Your task to perform on an android device: check android version Image 0: 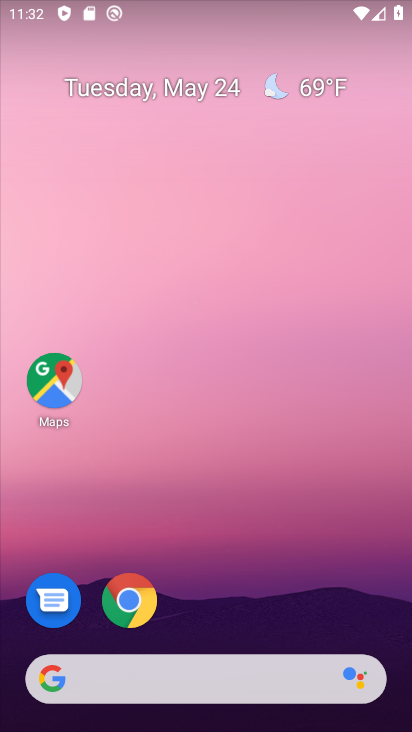
Step 0: drag from (374, 626) to (341, 220)
Your task to perform on an android device: check android version Image 1: 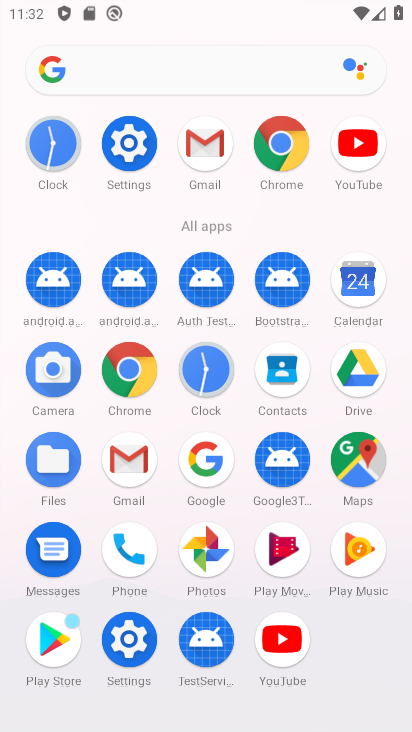
Step 1: click (129, 657)
Your task to perform on an android device: check android version Image 2: 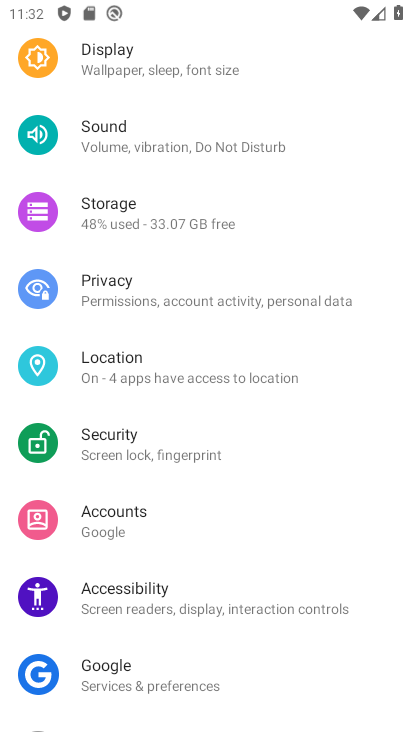
Step 2: drag from (361, 247) to (318, 447)
Your task to perform on an android device: check android version Image 3: 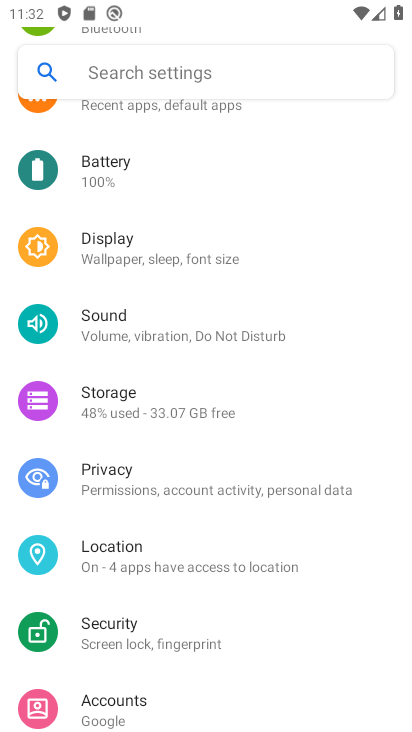
Step 3: drag from (317, 224) to (311, 417)
Your task to perform on an android device: check android version Image 4: 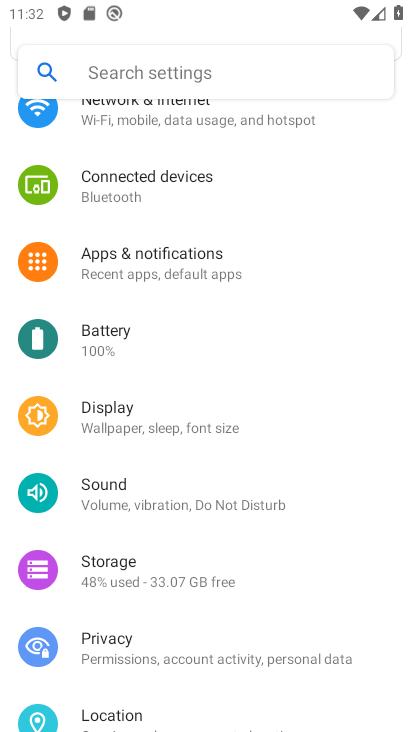
Step 4: drag from (354, 204) to (334, 387)
Your task to perform on an android device: check android version Image 5: 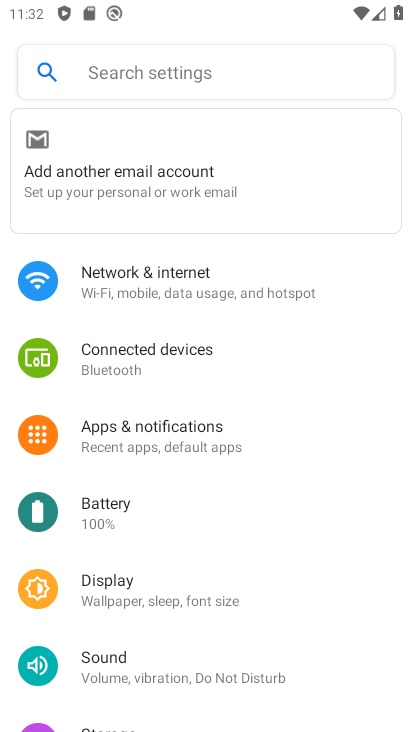
Step 5: drag from (335, 440) to (360, 332)
Your task to perform on an android device: check android version Image 6: 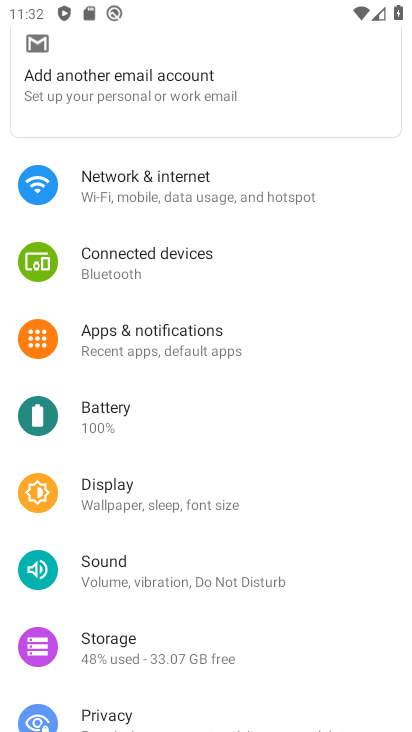
Step 6: drag from (372, 481) to (378, 385)
Your task to perform on an android device: check android version Image 7: 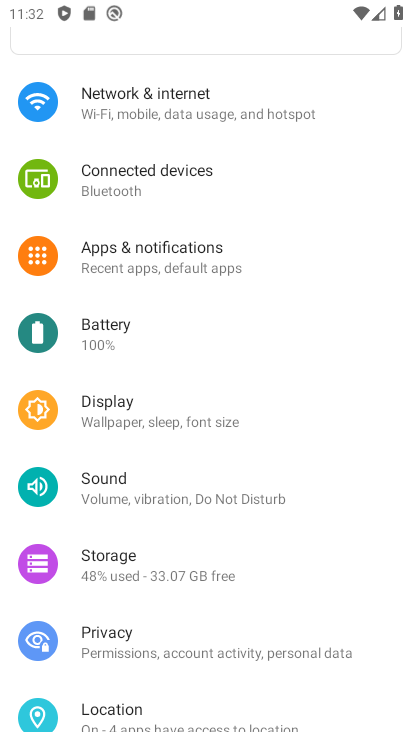
Step 7: drag from (363, 527) to (363, 406)
Your task to perform on an android device: check android version Image 8: 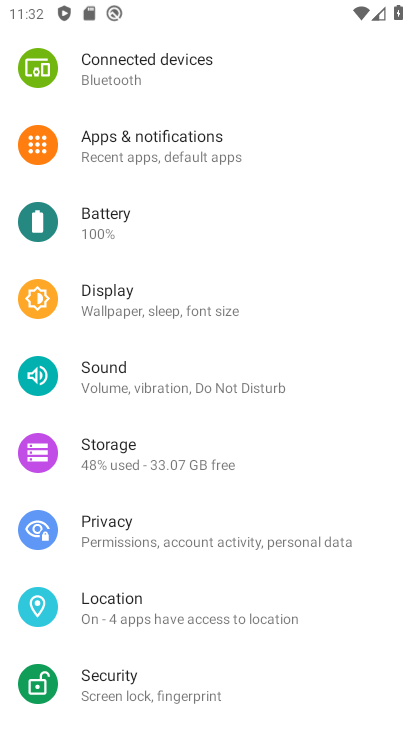
Step 8: drag from (354, 572) to (371, 436)
Your task to perform on an android device: check android version Image 9: 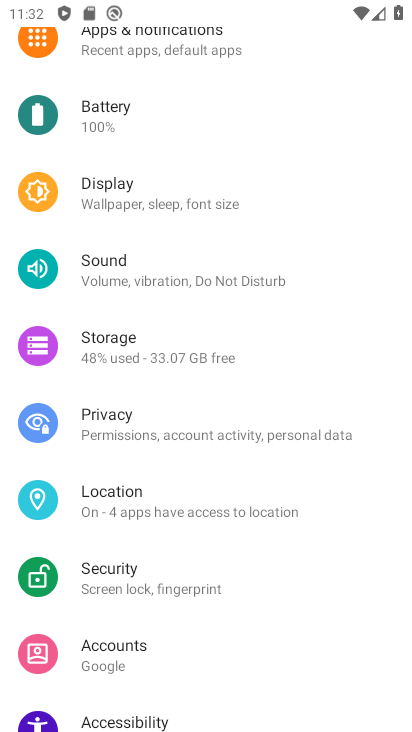
Step 9: drag from (345, 592) to (350, 463)
Your task to perform on an android device: check android version Image 10: 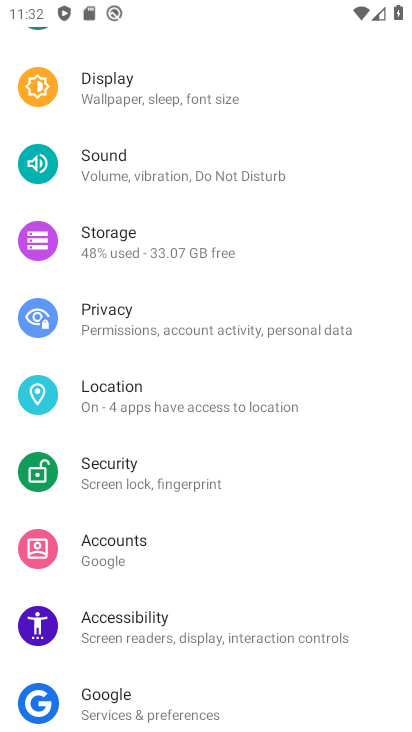
Step 10: drag from (352, 584) to (349, 463)
Your task to perform on an android device: check android version Image 11: 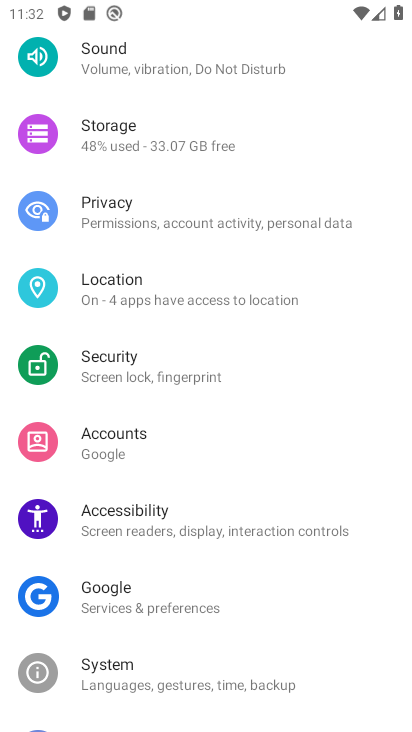
Step 11: drag from (330, 604) to (315, 467)
Your task to perform on an android device: check android version Image 12: 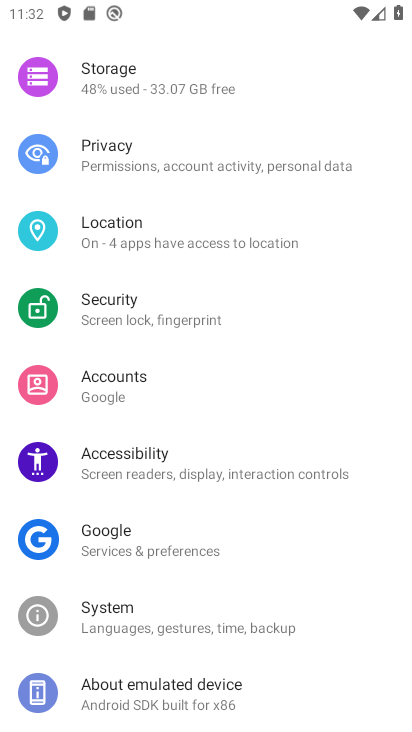
Step 12: click (299, 629)
Your task to perform on an android device: check android version Image 13: 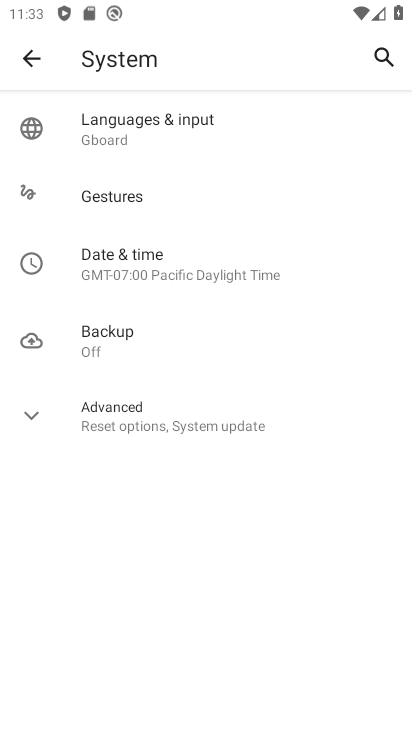
Step 13: click (229, 415)
Your task to perform on an android device: check android version Image 14: 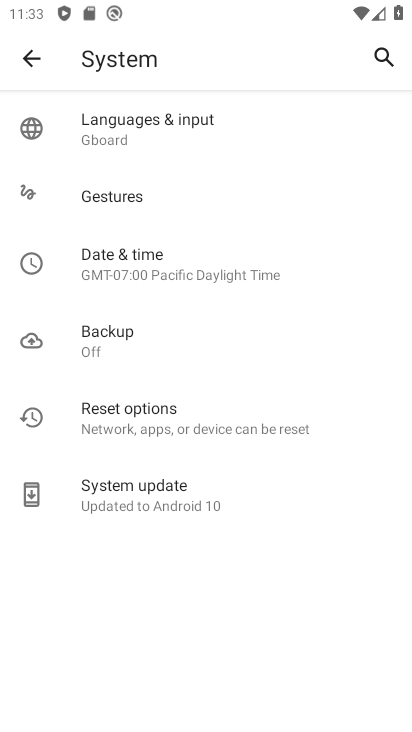
Step 14: click (198, 500)
Your task to perform on an android device: check android version Image 15: 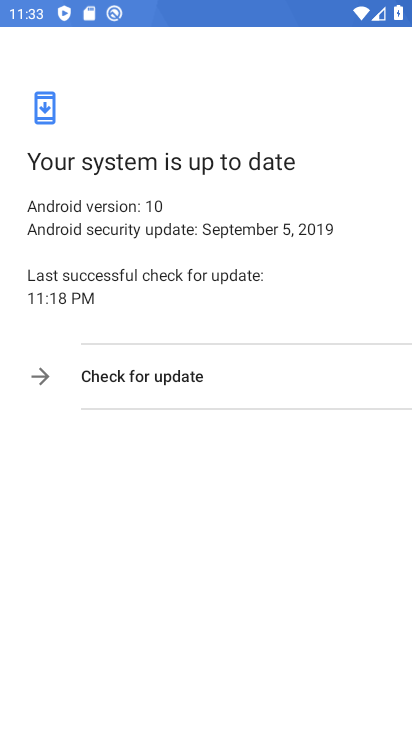
Step 15: task complete